Your task to perform on an android device: Open display settings Image 0: 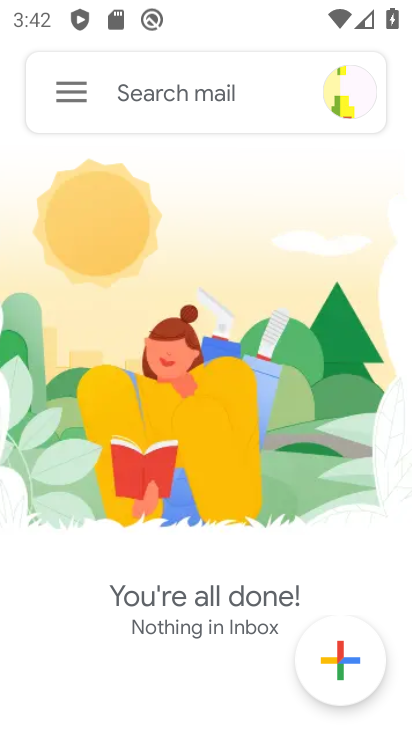
Step 0: press home button
Your task to perform on an android device: Open display settings Image 1: 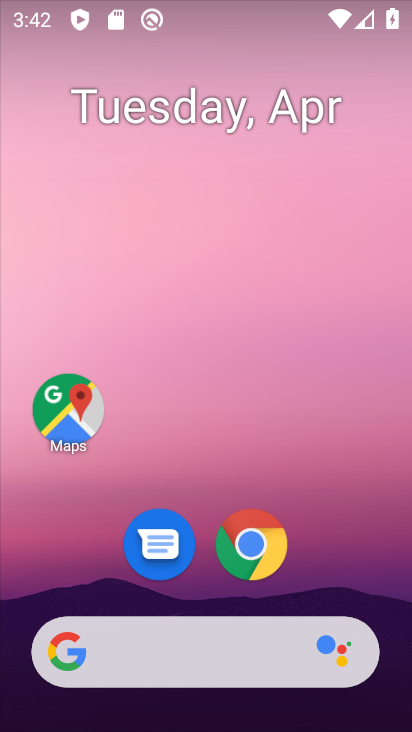
Step 1: drag from (200, 428) to (299, 9)
Your task to perform on an android device: Open display settings Image 2: 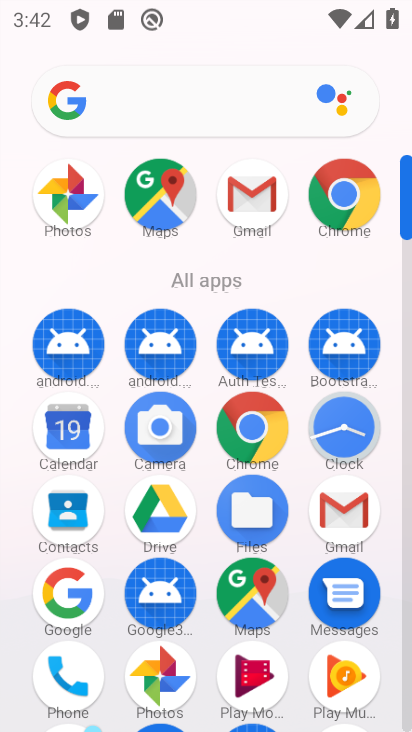
Step 2: drag from (204, 486) to (243, 66)
Your task to perform on an android device: Open display settings Image 3: 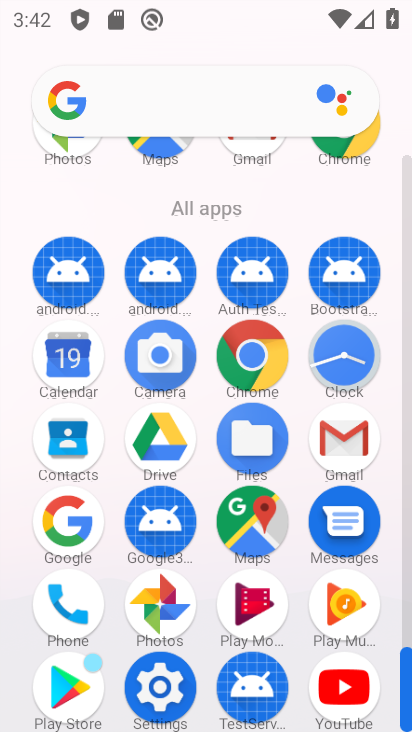
Step 3: click (167, 678)
Your task to perform on an android device: Open display settings Image 4: 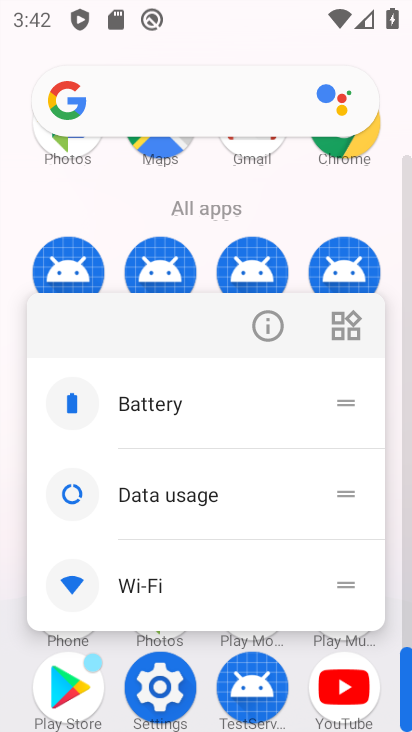
Step 4: click (131, 699)
Your task to perform on an android device: Open display settings Image 5: 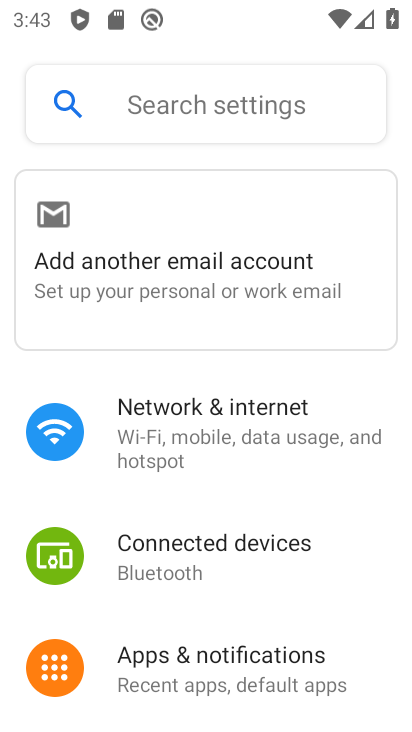
Step 5: drag from (209, 565) to (326, 17)
Your task to perform on an android device: Open display settings Image 6: 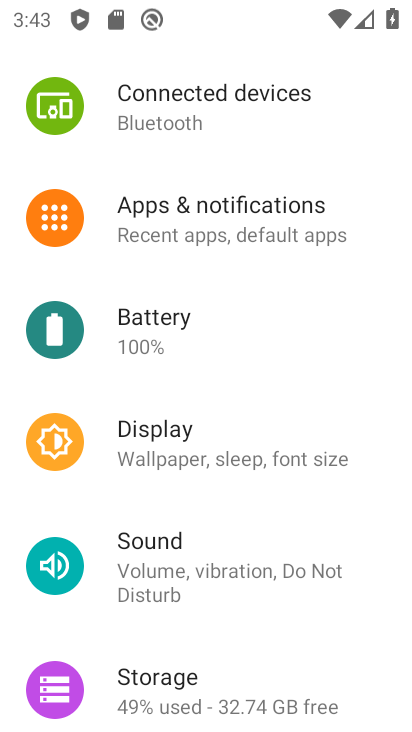
Step 6: click (204, 452)
Your task to perform on an android device: Open display settings Image 7: 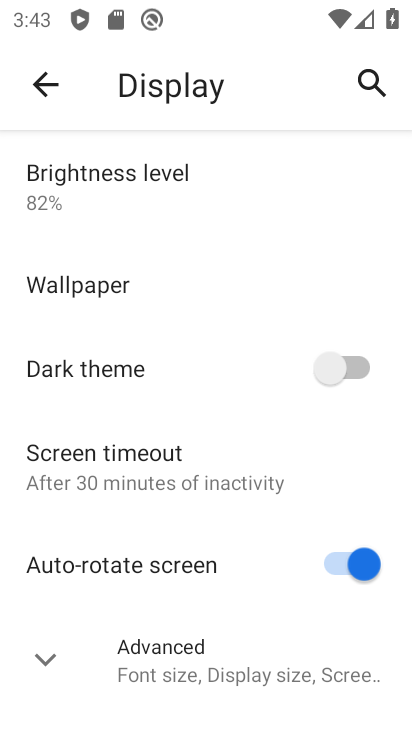
Step 7: task complete